Your task to perform on an android device: add a contact in the contacts app Image 0: 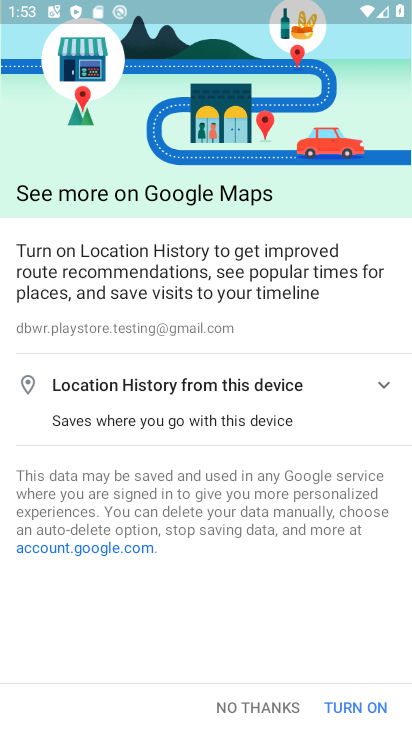
Step 0: press home button
Your task to perform on an android device: add a contact in the contacts app Image 1: 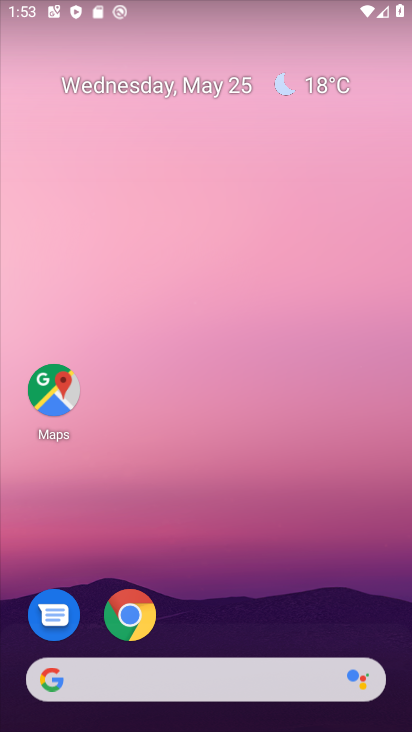
Step 1: drag from (279, 576) to (256, 34)
Your task to perform on an android device: add a contact in the contacts app Image 2: 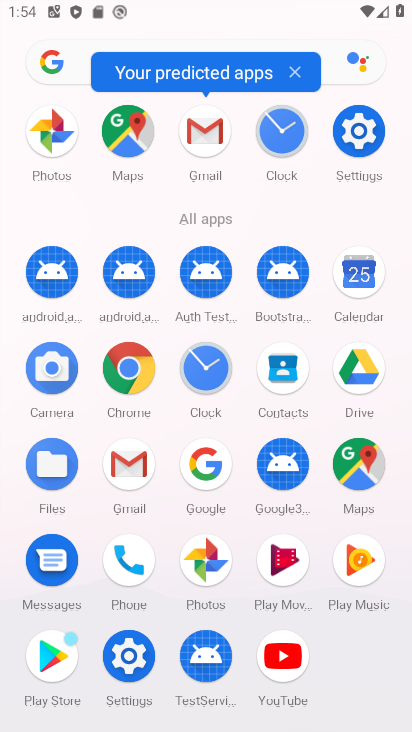
Step 2: click (280, 373)
Your task to perform on an android device: add a contact in the contacts app Image 3: 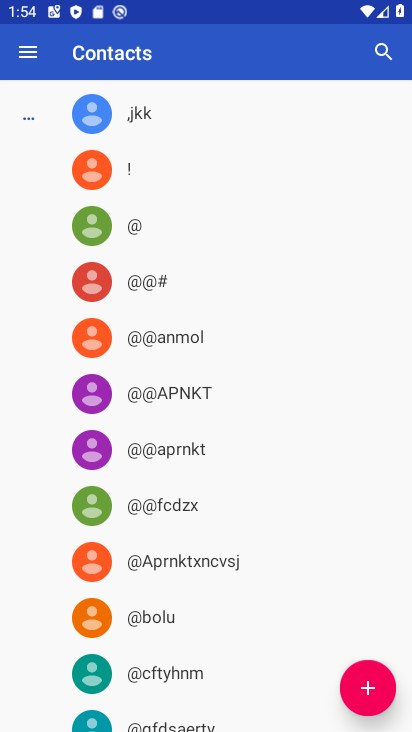
Step 3: click (366, 684)
Your task to perform on an android device: add a contact in the contacts app Image 4: 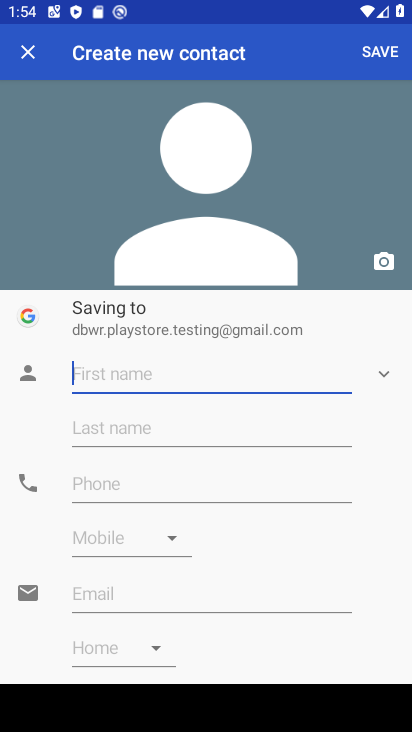
Step 4: type "Kachhapavataar Matsyaavtar"
Your task to perform on an android device: add a contact in the contacts app Image 5: 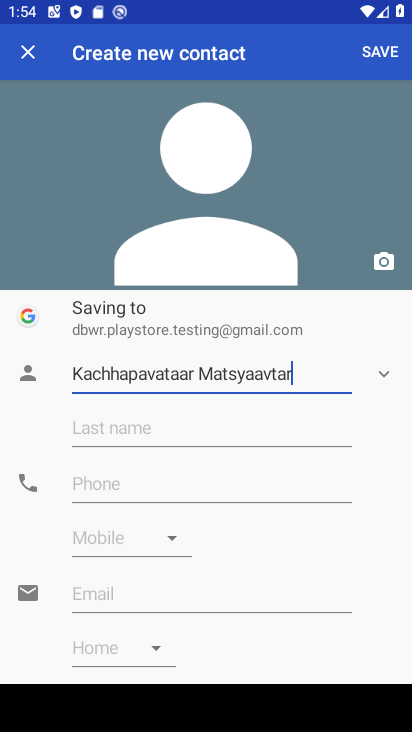
Step 5: click (269, 488)
Your task to perform on an android device: add a contact in the contacts app Image 6: 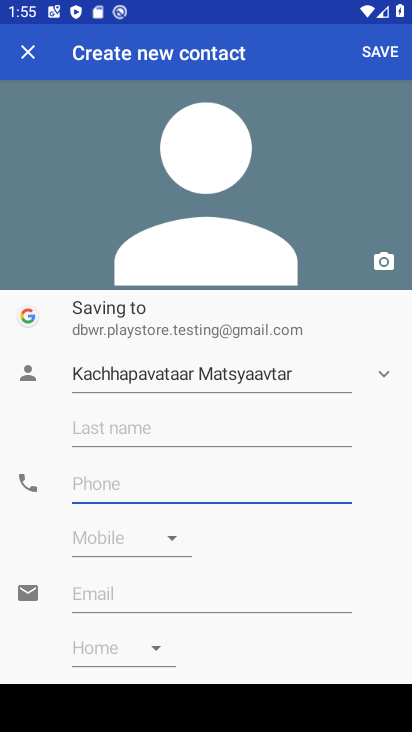
Step 6: type "01122446688"
Your task to perform on an android device: add a contact in the contacts app Image 7: 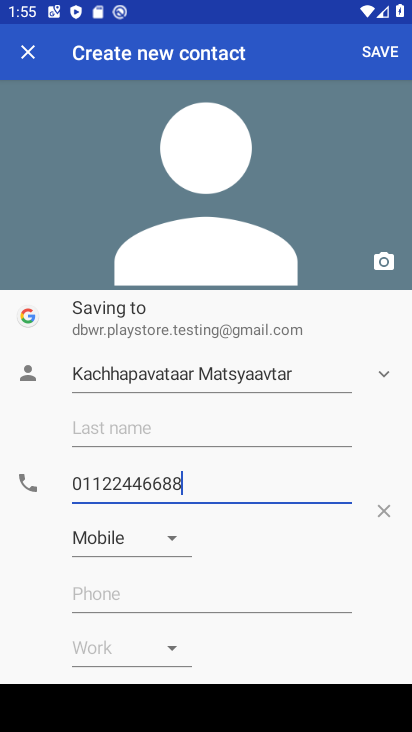
Step 7: click (390, 54)
Your task to perform on an android device: add a contact in the contacts app Image 8: 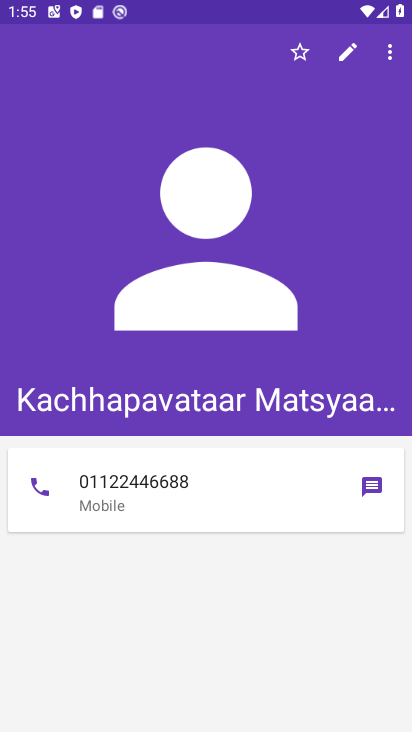
Step 8: task complete